Your task to perform on an android device: Open Google Chrome Image 0: 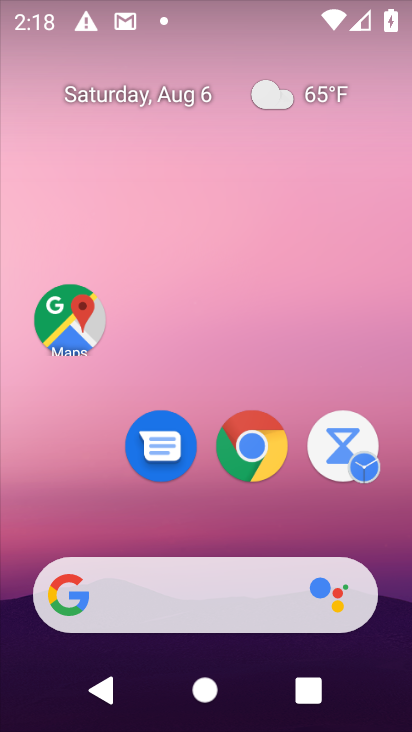
Step 0: drag from (243, 591) to (196, 272)
Your task to perform on an android device: Open Google Chrome Image 1: 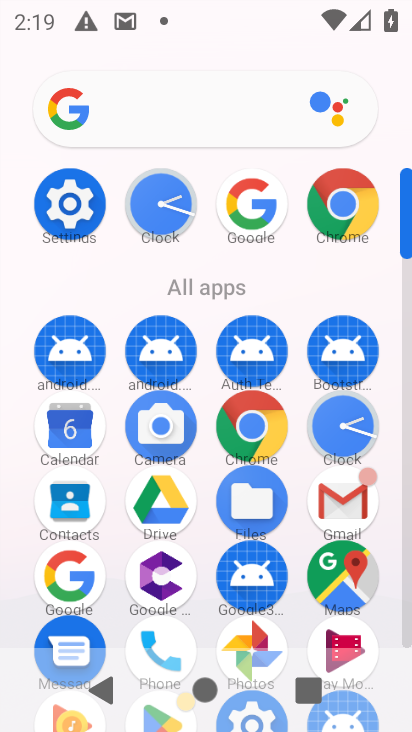
Step 1: click (323, 206)
Your task to perform on an android device: Open Google Chrome Image 2: 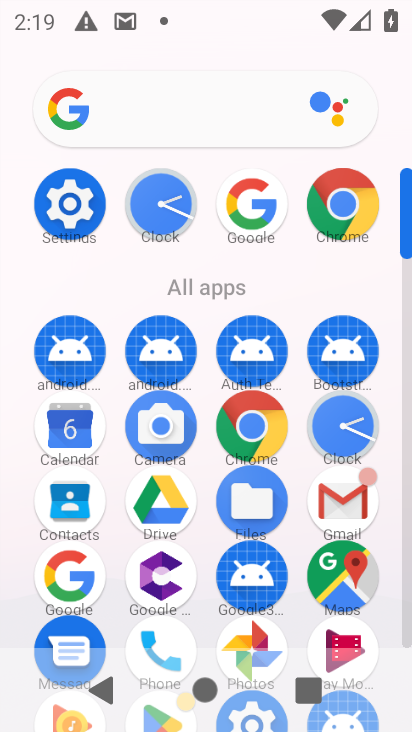
Step 2: click (342, 189)
Your task to perform on an android device: Open Google Chrome Image 3: 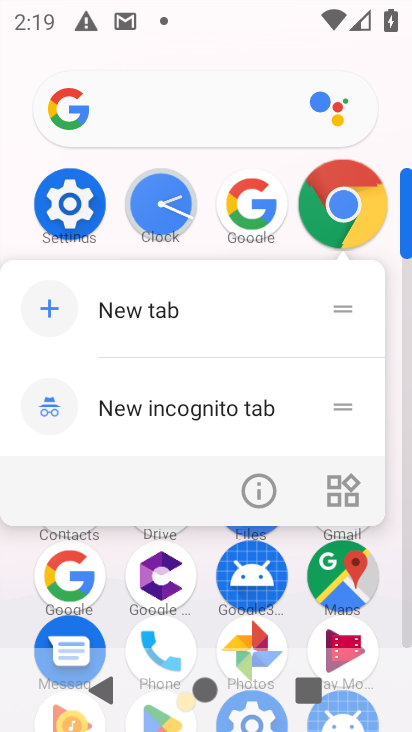
Step 3: click (342, 189)
Your task to perform on an android device: Open Google Chrome Image 4: 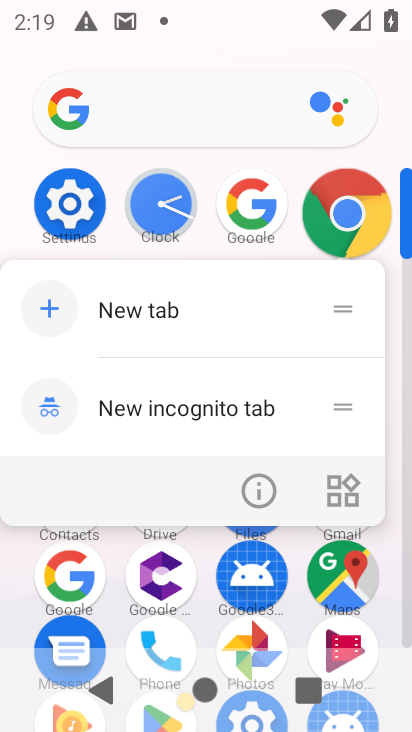
Step 4: click (346, 198)
Your task to perform on an android device: Open Google Chrome Image 5: 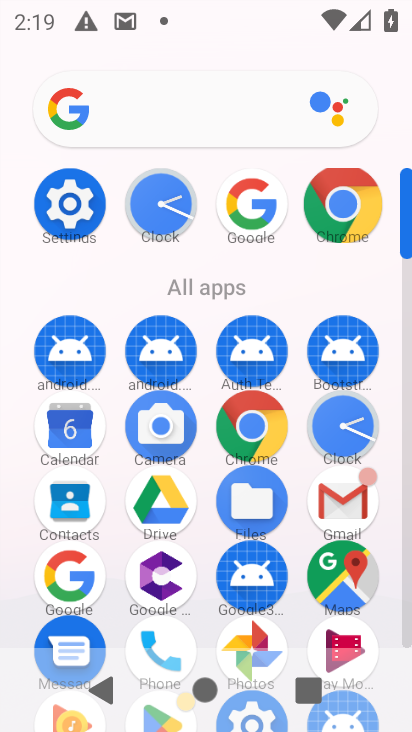
Step 5: click (345, 199)
Your task to perform on an android device: Open Google Chrome Image 6: 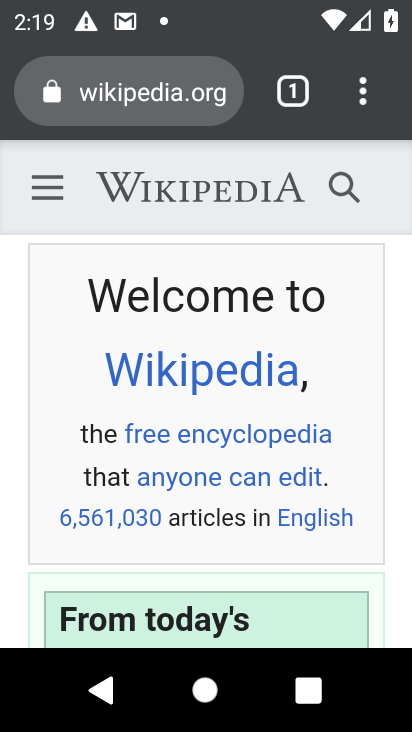
Step 6: task complete